Your task to perform on an android device: check storage Image 0: 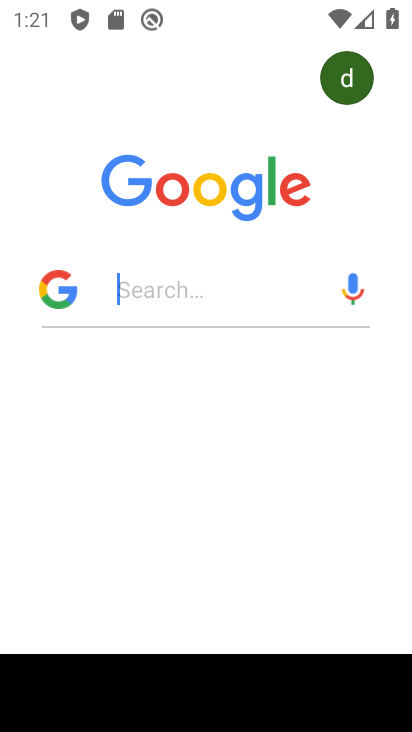
Step 0: press home button
Your task to perform on an android device: check storage Image 1: 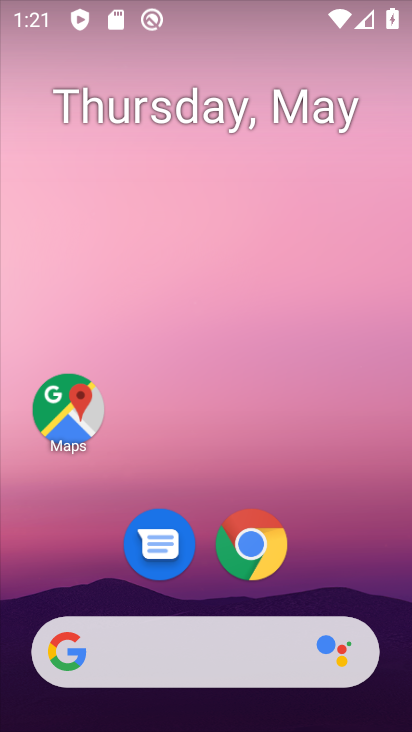
Step 1: drag from (315, 532) to (355, 121)
Your task to perform on an android device: check storage Image 2: 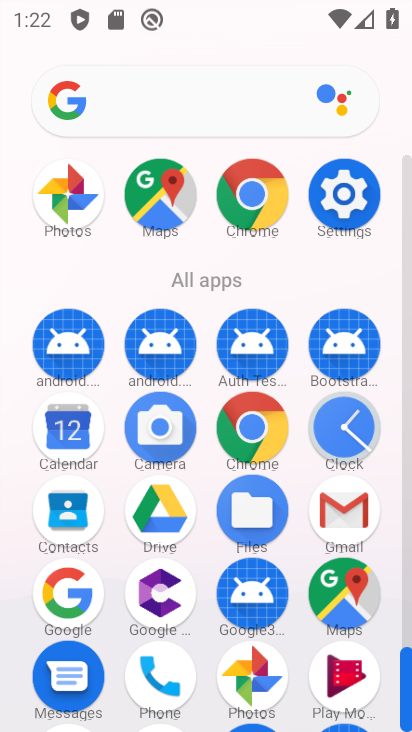
Step 2: click (349, 213)
Your task to perform on an android device: check storage Image 3: 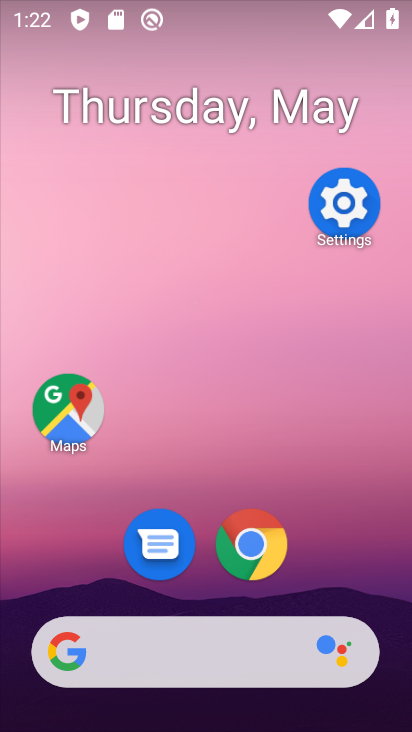
Step 3: click (307, 244)
Your task to perform on an android device: check storage Image 4: 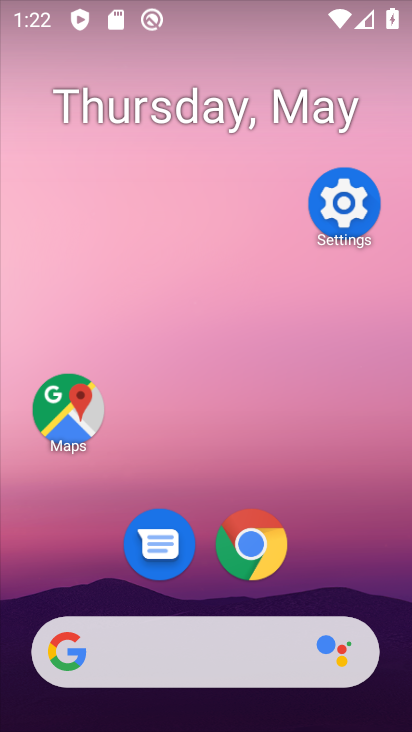
Step 4: click (344, 217)
Your task to perform on an android device: check storage Image 5: 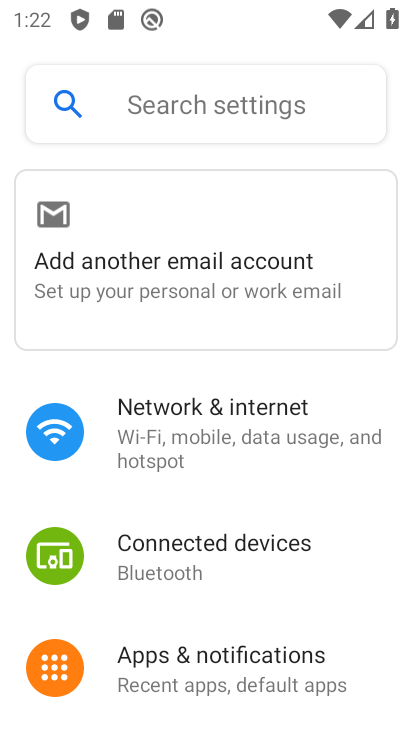
Step 5: drag from (230, 583) to (267, 206)
Your task to perform on an android device: check storage Image 6: 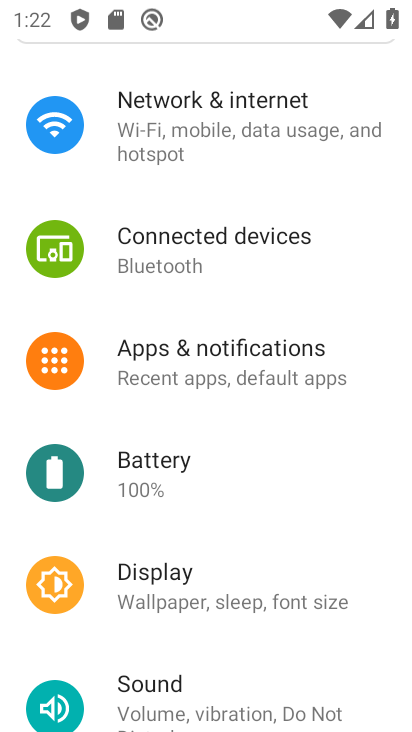
Step 6: drag from (189, 586) to (214, 251)
Your task to perform on an android device: check storage Image 7: 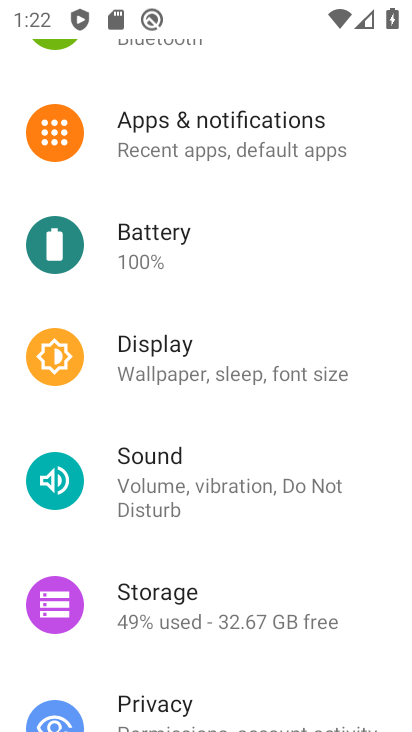
Step 7: click (181, 620)
Your task to perform on an android device: check storage Image 8: 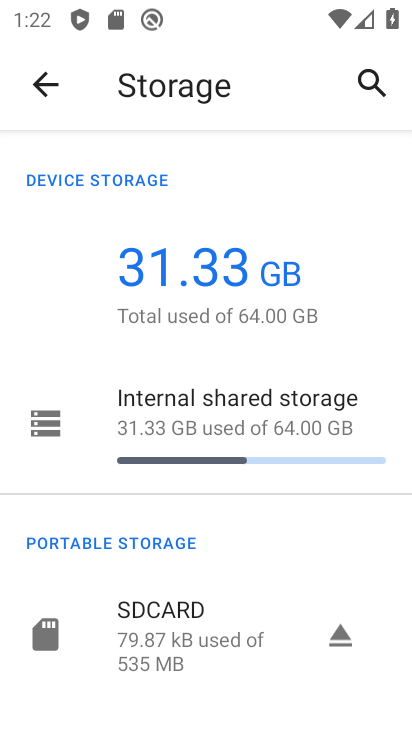
Step 8: task complete